Your task to perform on an android device: Show the shopping cart on bestbuy. Add "razer thresher" to the cart on bestbuy Image 0: 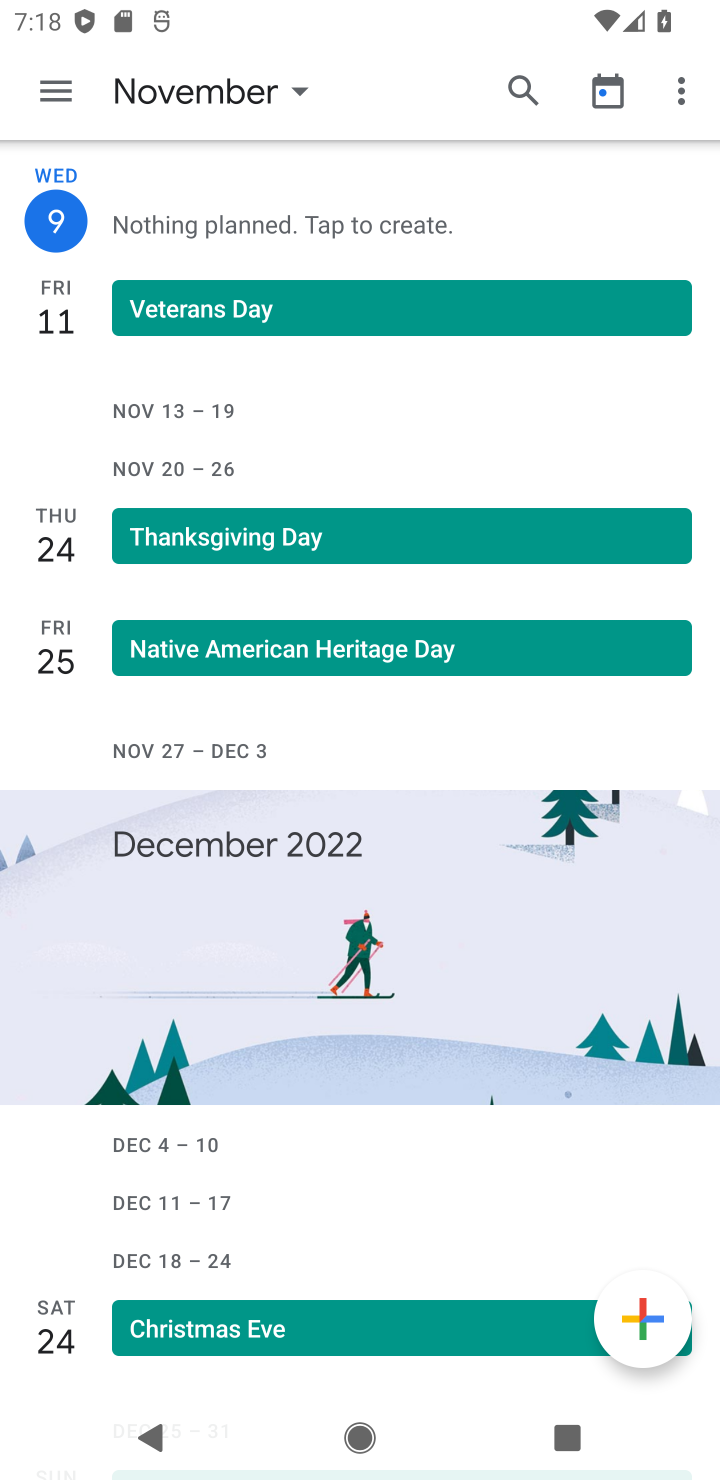
Step 0: press home button
Your task to perform on an android device: Show the shopping cart on bestbuy. Add "razer thresher" to the cart on bestbuy Image 1: 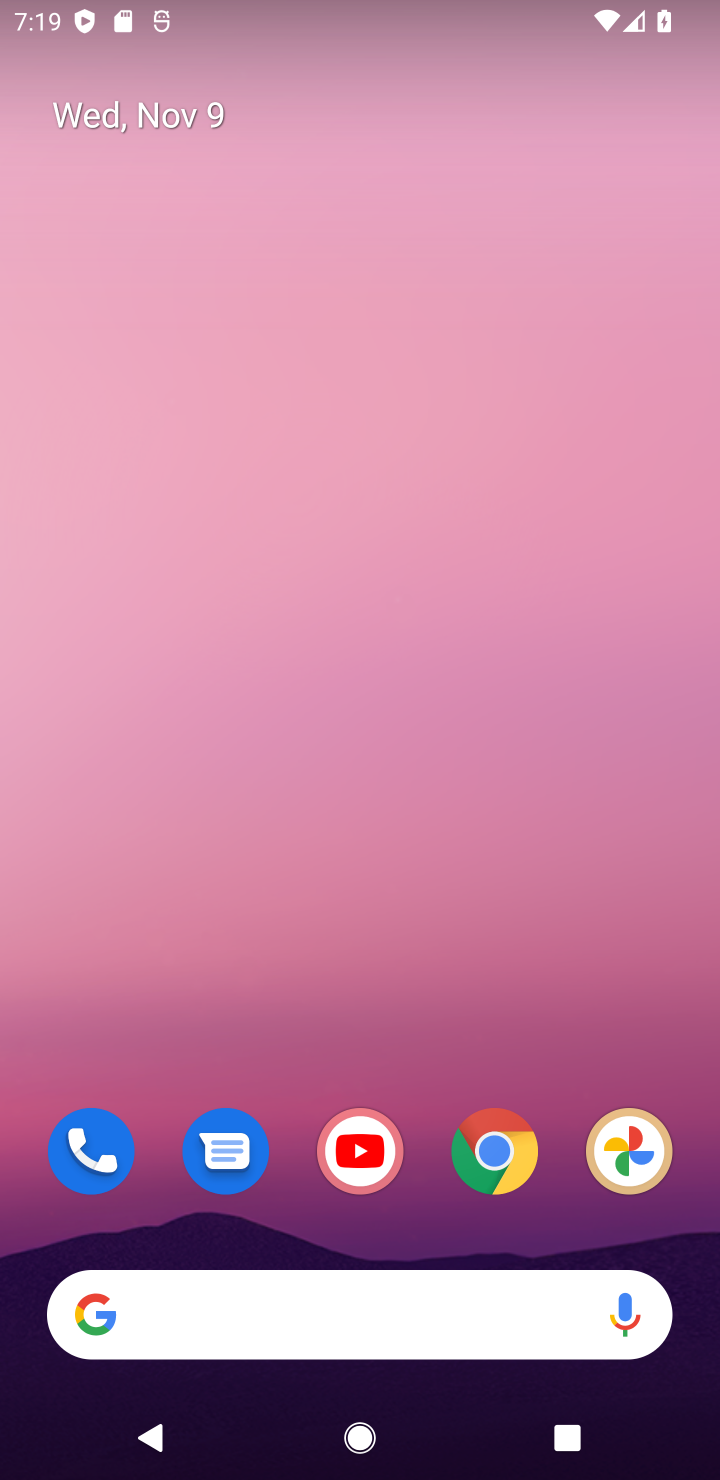
Step 1: drag from (319, 603) to (470, 0)
Your task to perform on an android device: Show the shopping cart on bestbuy. Add "razer thresher" to the cart on bestbuy Image 2: 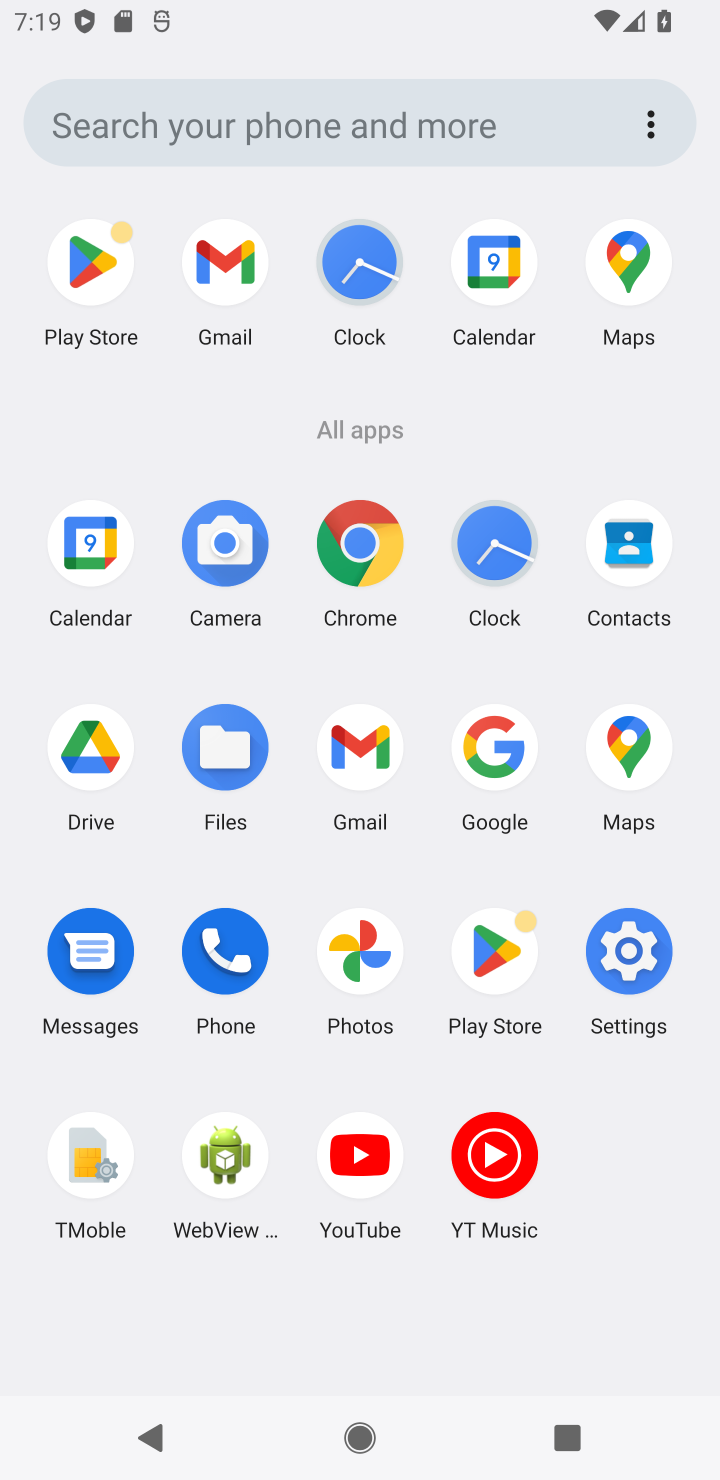
Step 2: click (346, 564)
Your task to perform on an android device: Show the shopping cart on bestbuy. Add "razer thresher" to the cart on bestbuy Image 3: 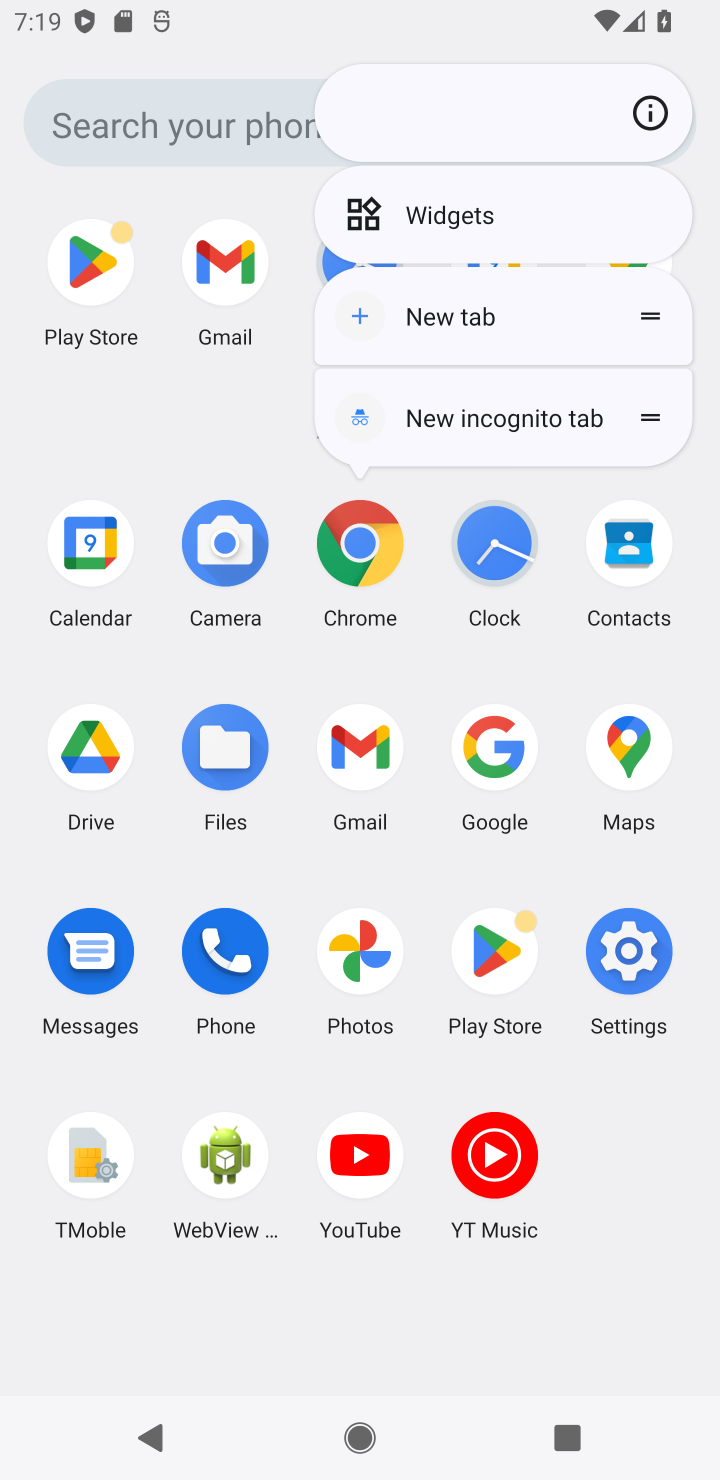
Step 3: click (346, 559)
Your task to perform on an android device: Show the shopping cart on bestbuy. Add "razer thresher" to the cart on bestbuy Image 4: 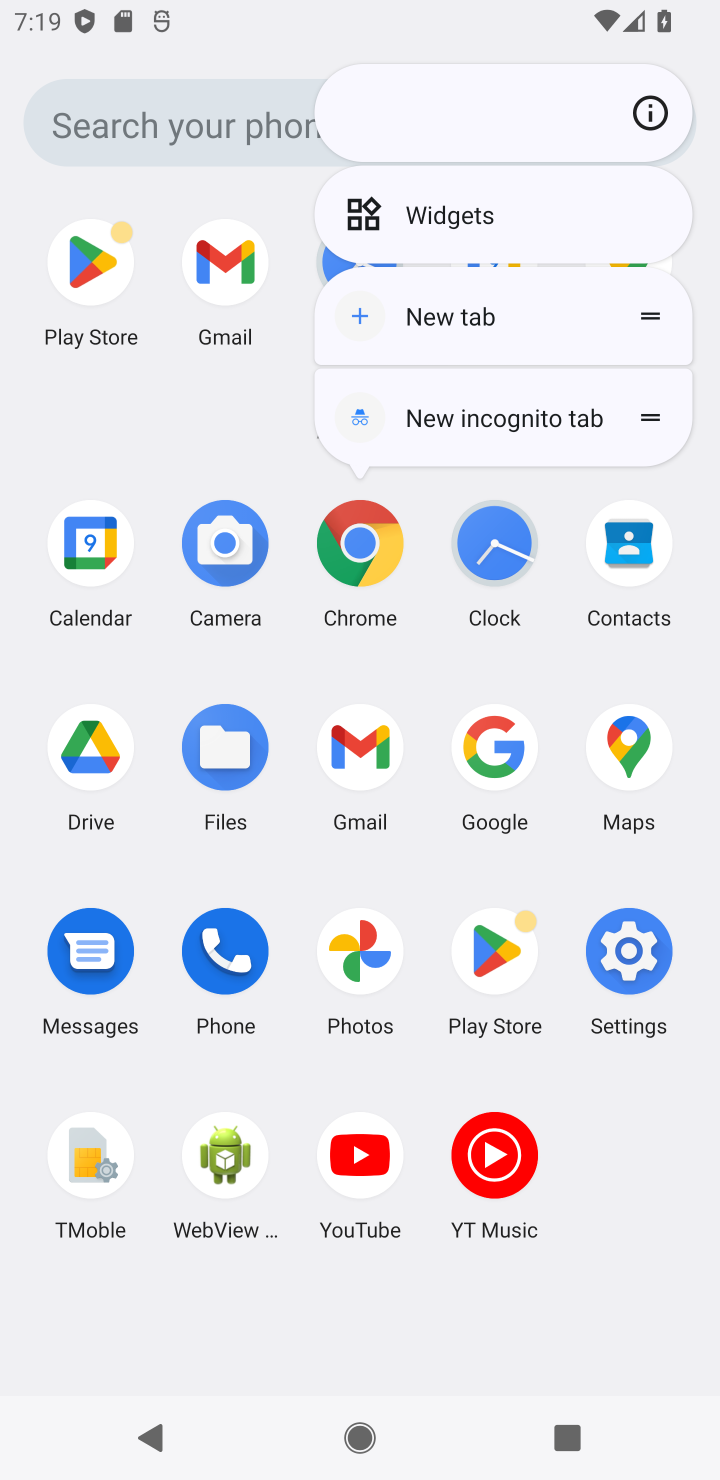
Step 4: click (360, 554)
Your task to perform on an android device: Show the shopping cart on bestbuy. Add "razer thresher" to the cart on bestbuy Image 5: 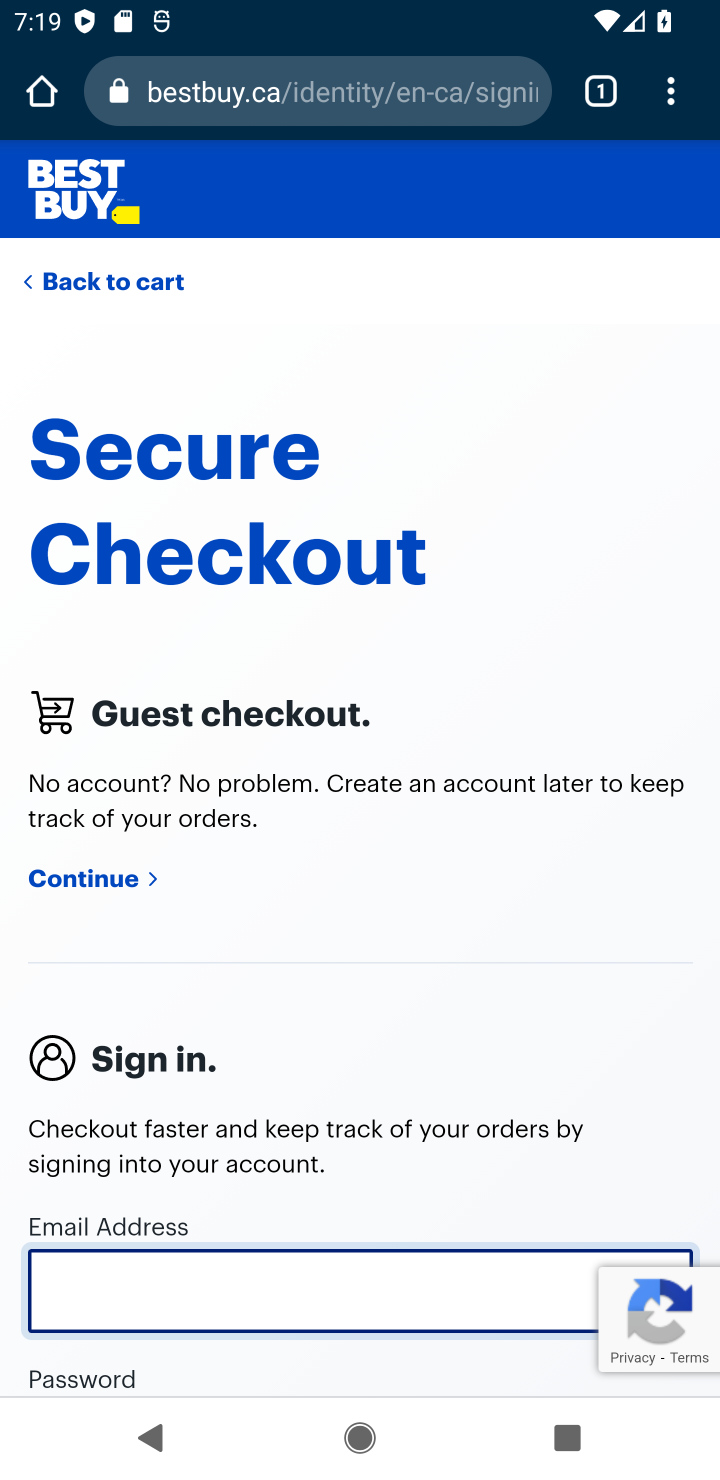
Step 5: press back button
Your task to perform on an android device: Show the shopping cart on bestbuy. Add "razer thresher" to the cart on bestbuy Image 6: 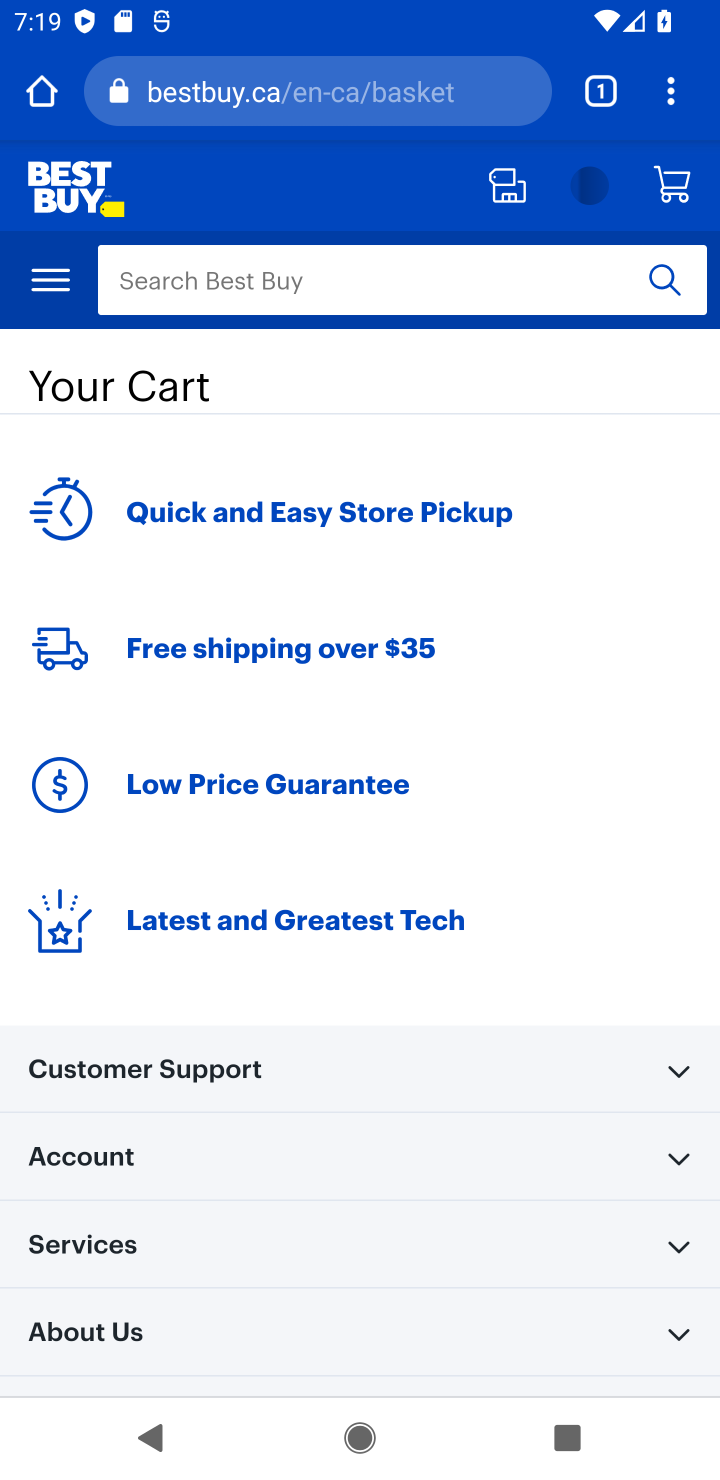
Step 6: click (163, 275)
Your task to perform on an android device: Show the shopping cart on bestbuy. Add "razer thresher" to the cart on bestbuy Image 7: 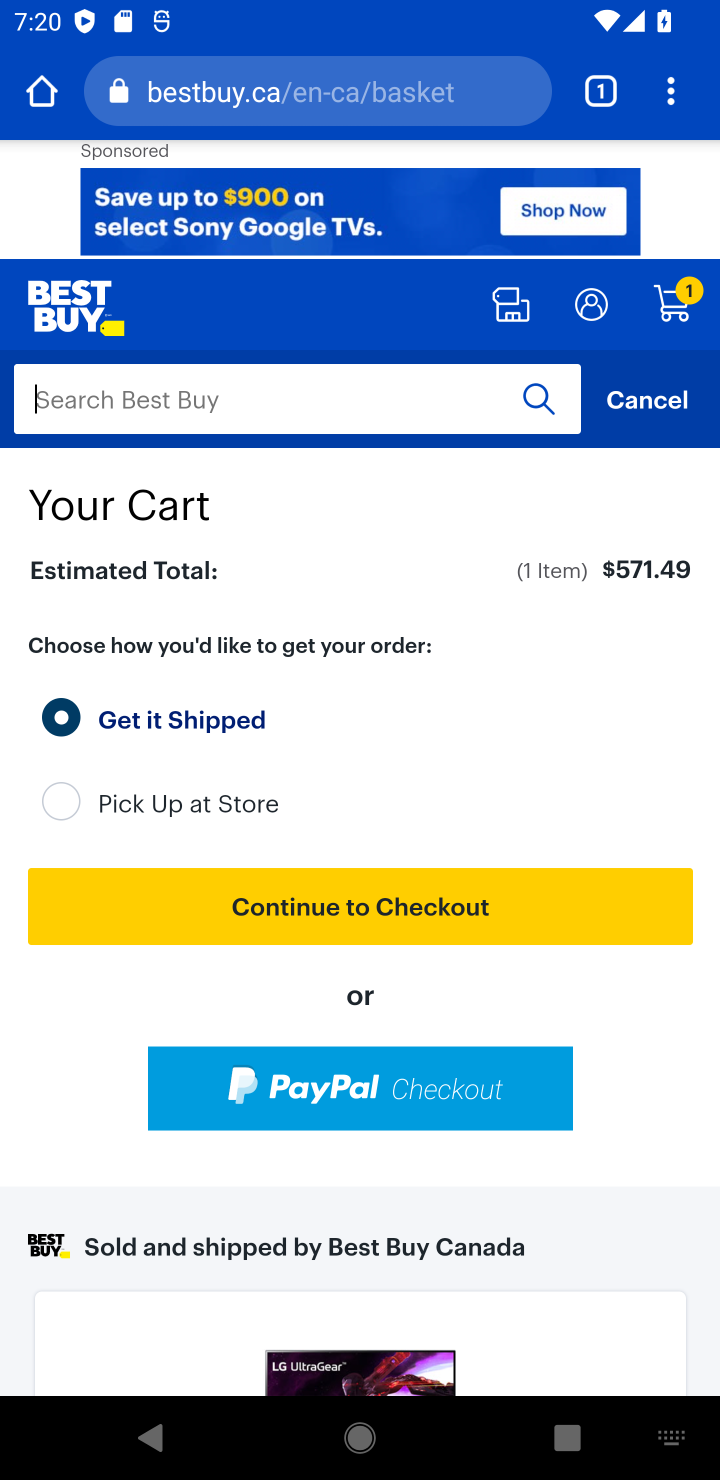
Step 7: type "razer thresher"
Your task to perform on an android device: Show the shopping cart on bestbuy. Add "razer thresher" to the cart on bestbuy Image 8: 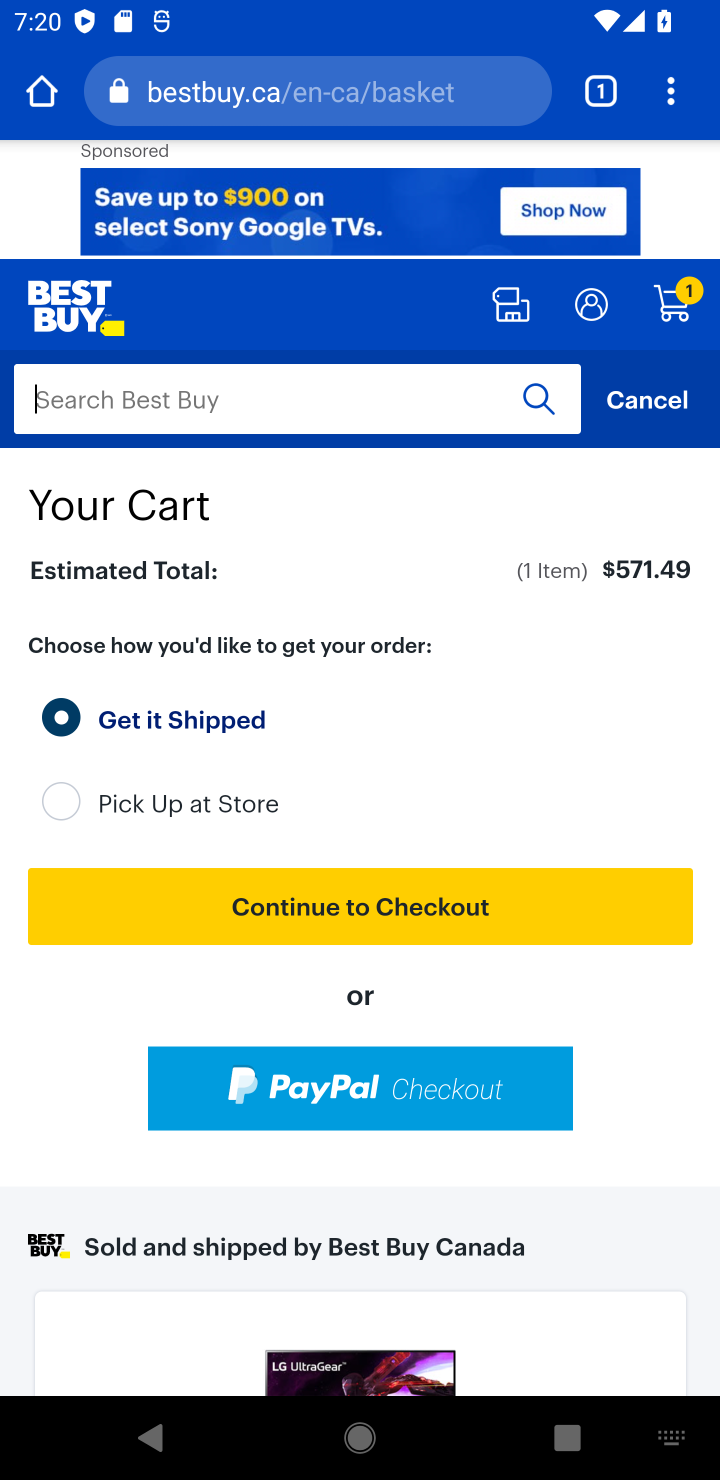
Step 8: press enter
Your task to perform on an android device: Show the shopping cart on bestbuy. Add "razer thresher" to the cart on bestbuy Image 9: 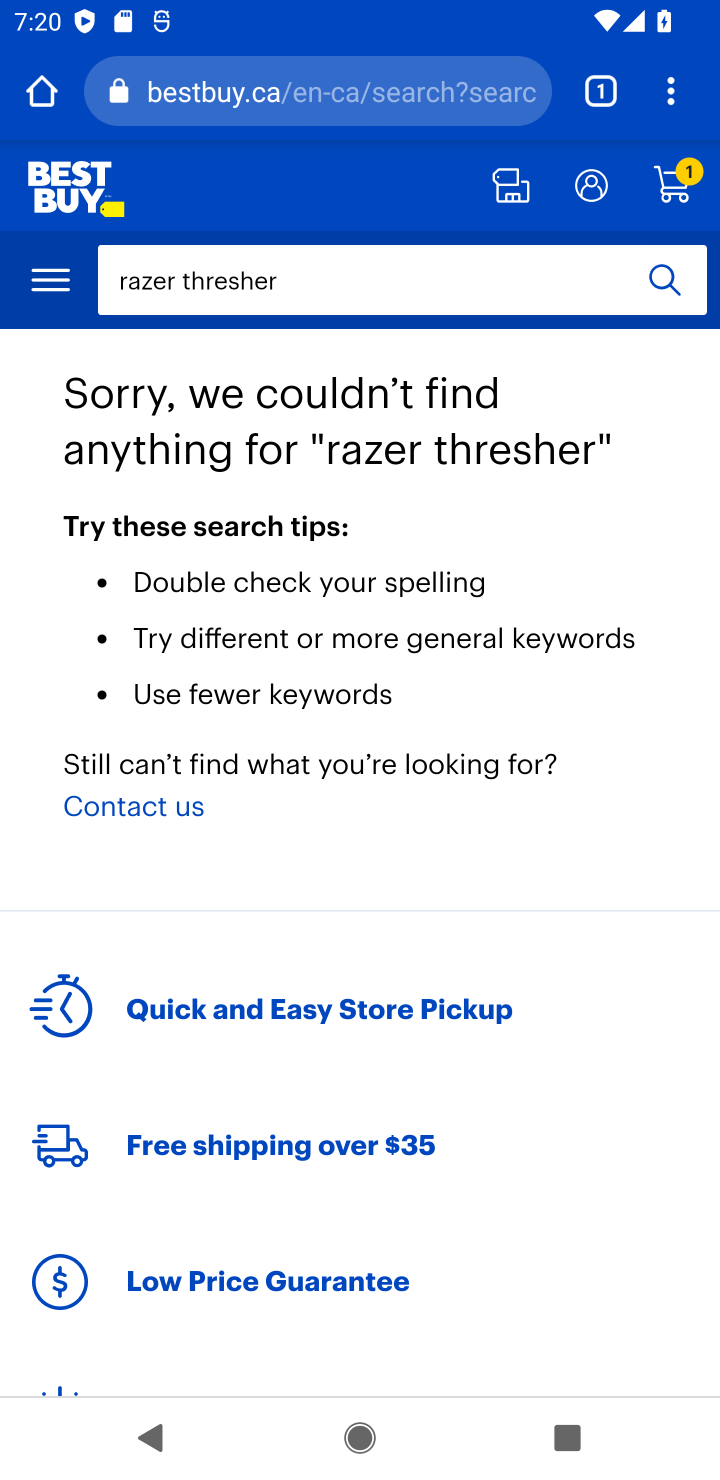
Step 9: task complete